Your task to perform on an android device: turn off picture-in-picture Image 0: 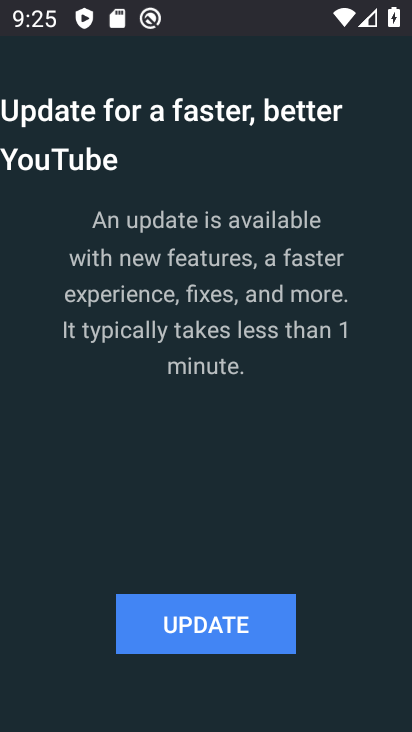
Step 0: press home button
Your task to perform on an android device: turn off picture-in-picture Image 1: 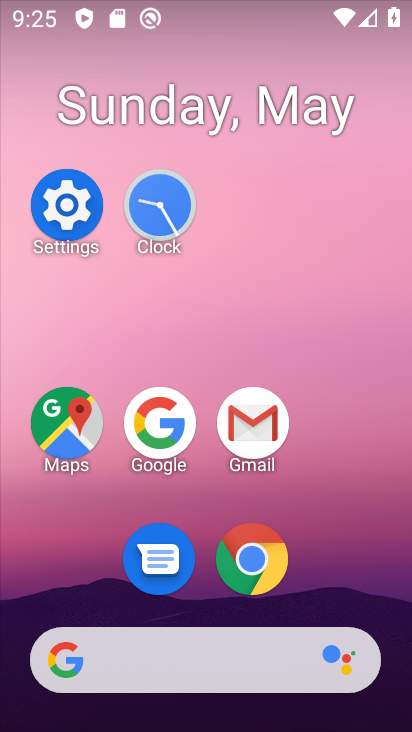
Step 1: click (256, 590)
Your task to perform on an android device: turn off picture-in-picture Image 2: 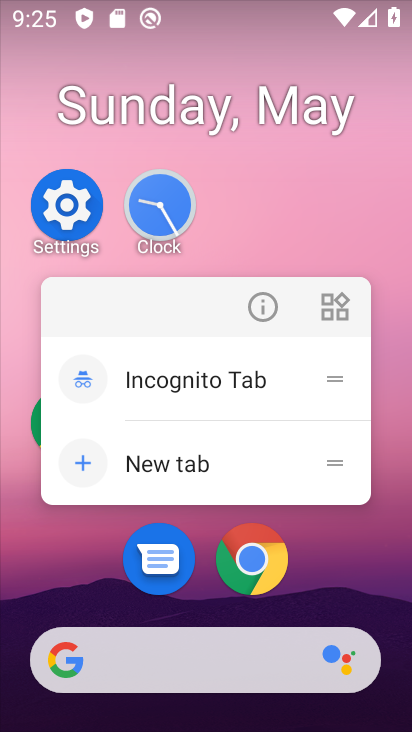
Step 2: click (270, 314)
Your task to perform on an android device: turn off picture-in-picture Image 3: 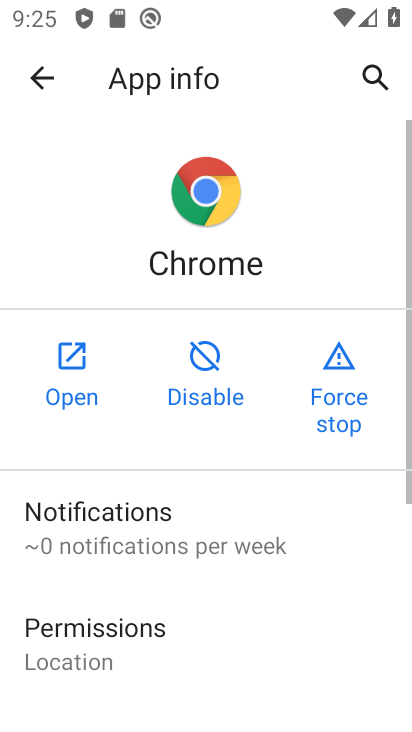
Step 3: drag from (198, 610) to (214, 247)
Your task to perform on an android device: turn off picture-in-picture Image 4: 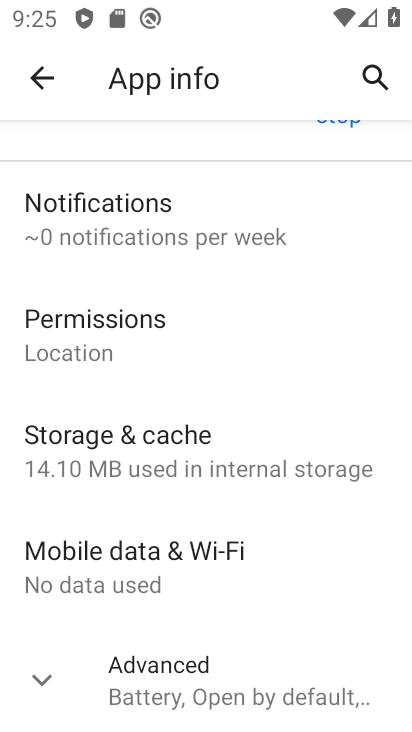
Step 4: click (232, 699)
Your task to perform on an android device: turn off picture-in-picture Image 5: 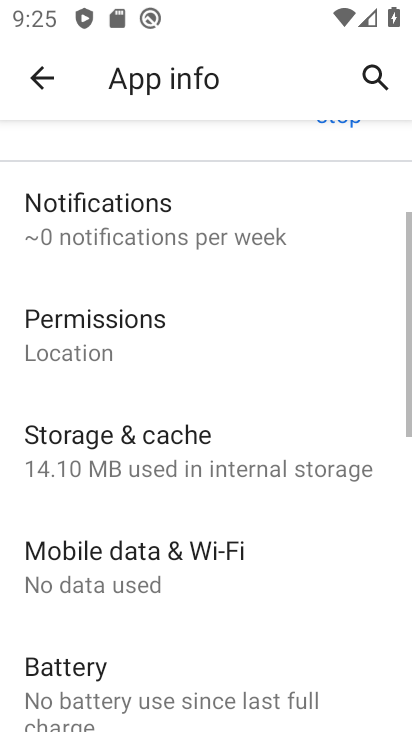
Step 5: drag from (239, 706) to (237, 280)
Your task to perform on an android device: turn off picture-in-picture Image 6: 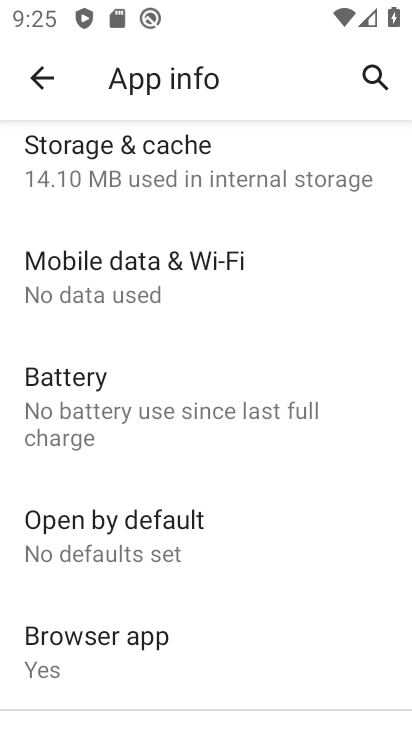
Step 6: drag from (230, 600) to (219, 356)
Your task to perform on an android device: turn off picture-in-picture Image 7: 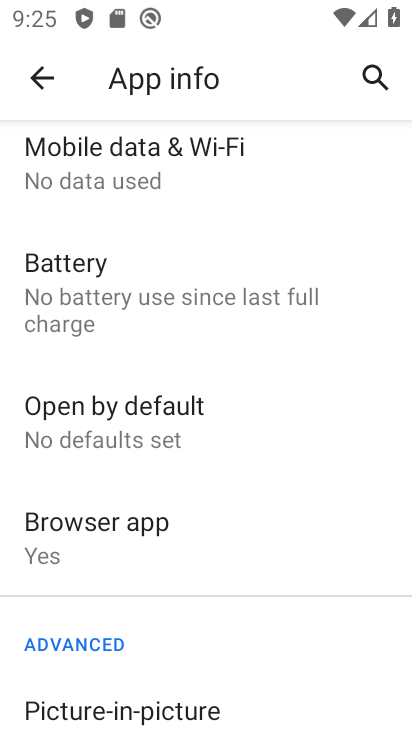
Step 7: click (200, 691)
Your task to perform on an android device: turn off picture-in-picture Image 8: 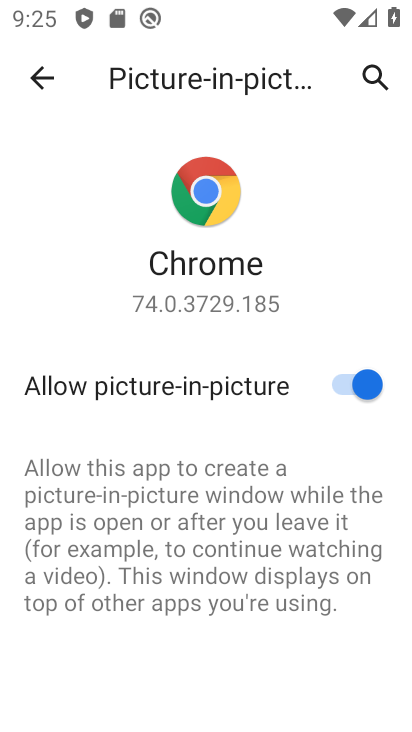
Step 8: click (325, 379)
Your task to perform on an android device: turn off picture-in-picture Image 9: 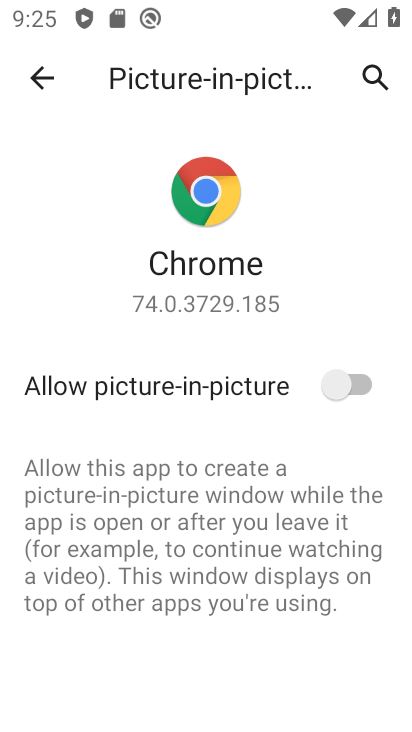
Step 9: task complete